Your task to perform on an android device: check android version Image 0: 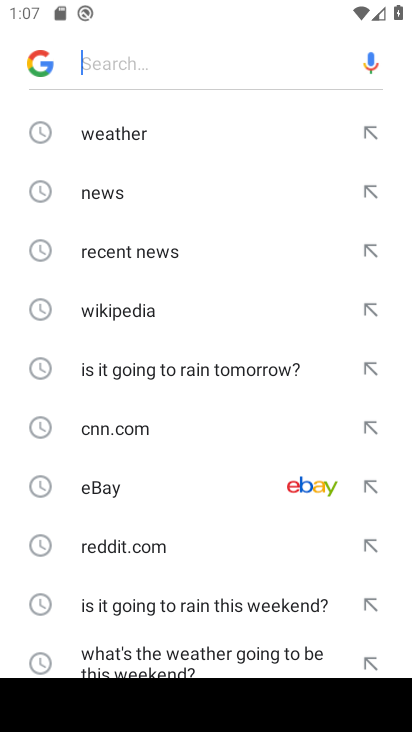
Step 0: press home button
Your task to perform on an android device: check android version Image 1: 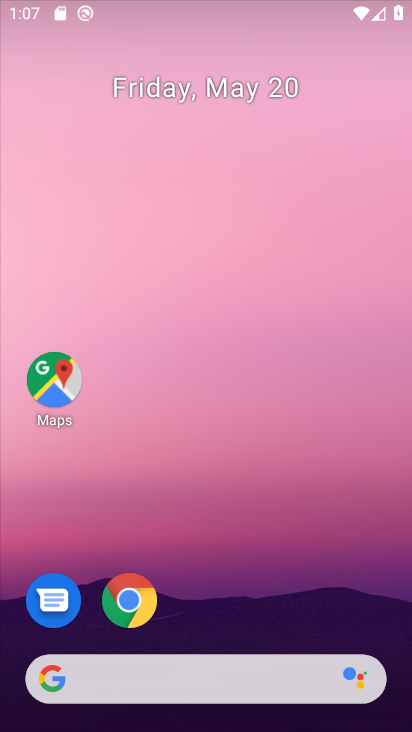
Step 1: drag from (253, 359) to (203, 1)
Your task to perform on an android device: check android version Image 2: 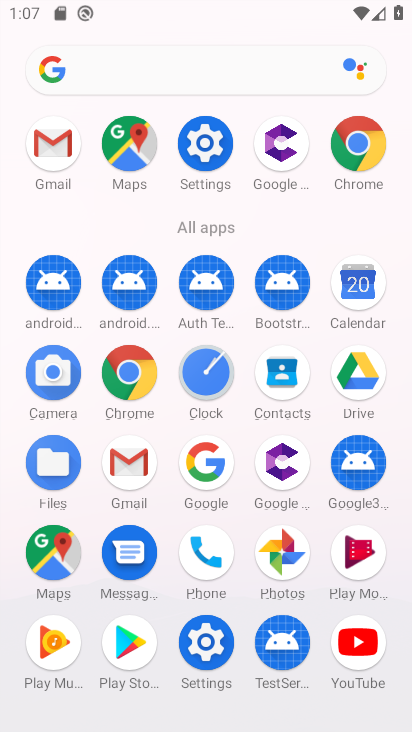
Step 2: click (221, 155)
Your task to perform on an android device: check android version Image 3: 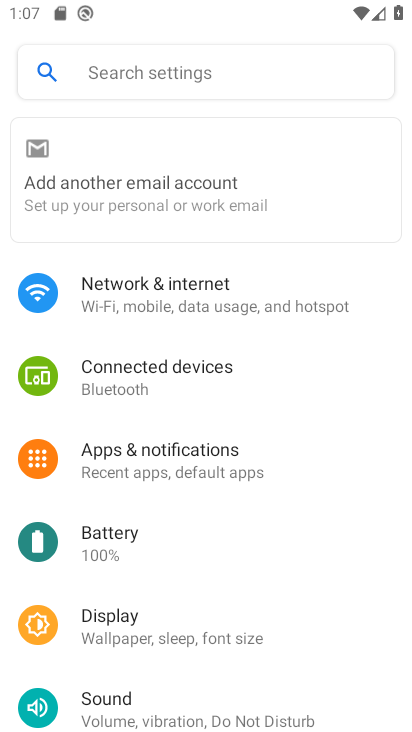
Step 3: drag from (241, 538) to (231, 139)
Your task to perform on an android device: check android version Image 4: 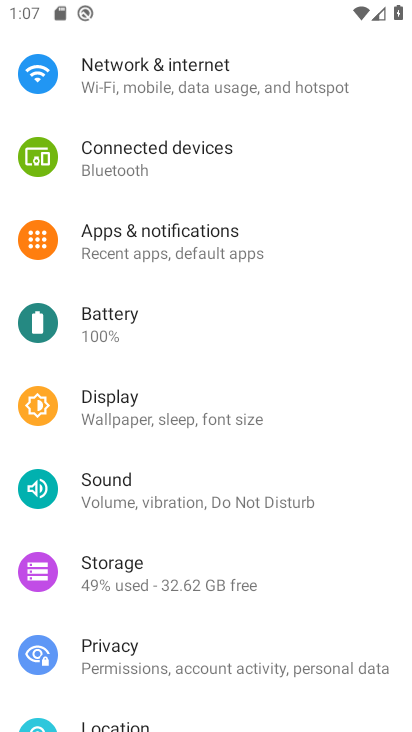
Step 4: drag from (196, 504) to (201, 179)
Your task to perform on an android device: check android version Image 5: 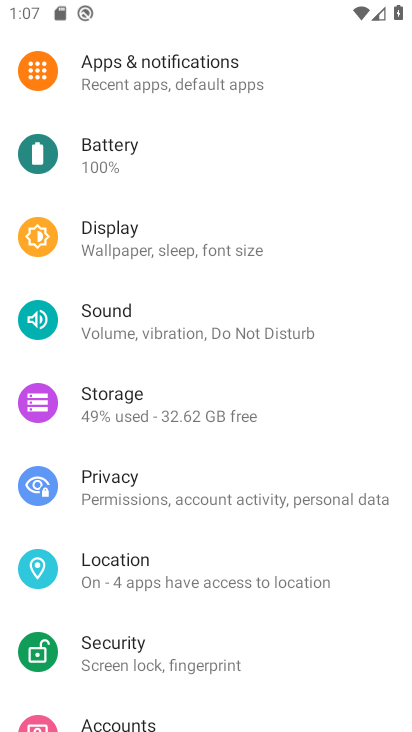
Step 5: drag from (191, 643) to (216, 214)
Your task to perform on an android device: check android version Image 6: 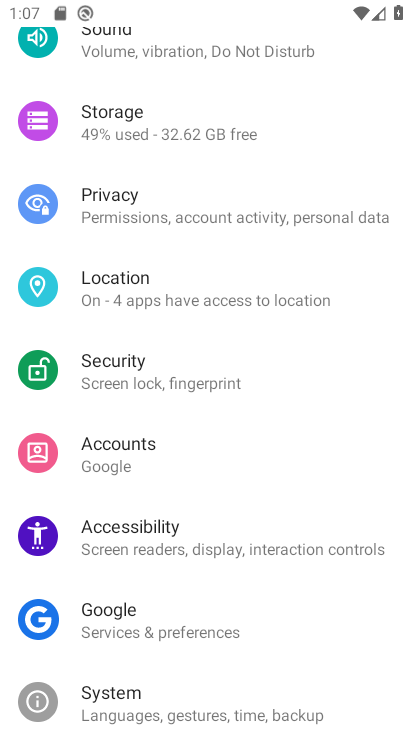
Step 6: drag from (209, 650) to (205, 247)
Your task to perform on an android device: check android version Image 7: 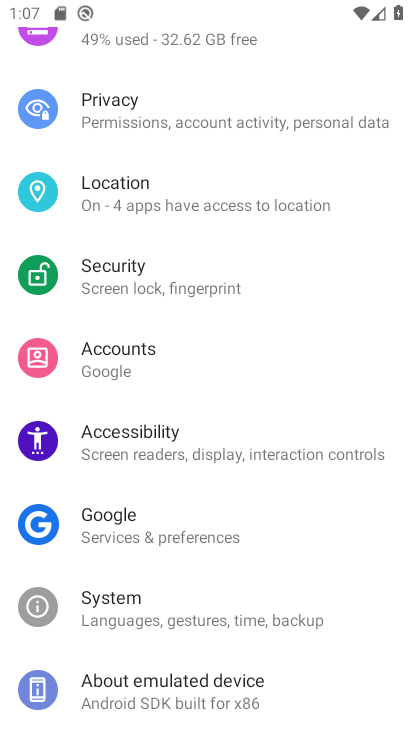
Step 7: click (166, 671)
Your task to perform on an android device: check android version Image 8: 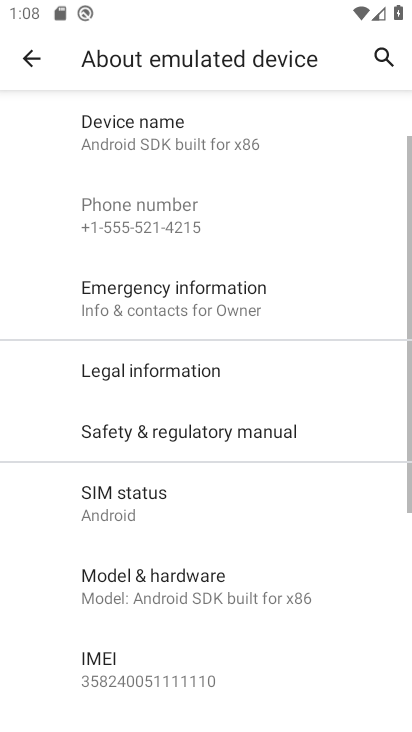
Step 8: drag from (242, 521) to (229, 140)
Your task to perform on an android device: check android version Image 9: 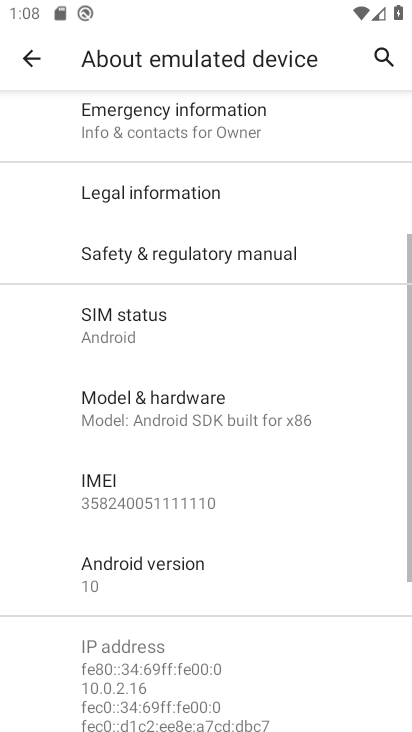
Step 9: click (187, 576)
Your task to perform on an android device: check android version Image 10: 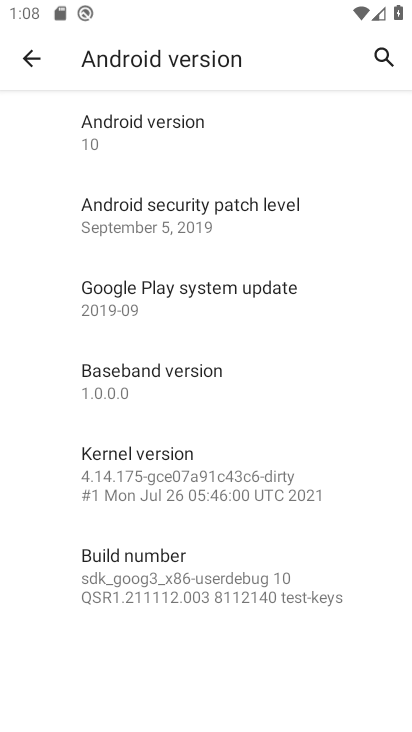
Step 10: task complete